Your task to perform on an android device: change notifications settings Image 0: 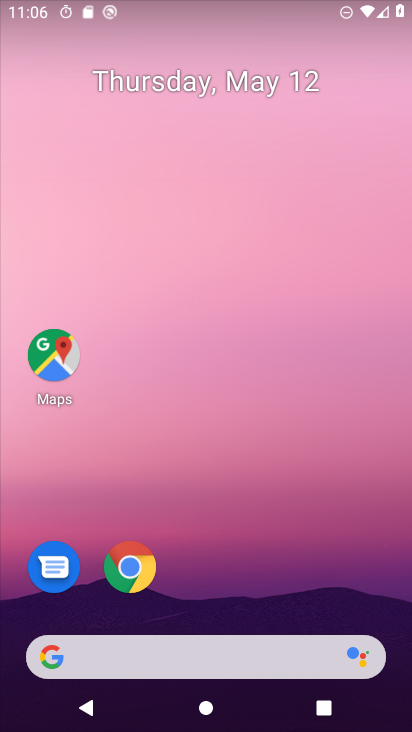
Step 0: drag from (259, 662) to (294, 185)
Your task to perform on an android device: change notifications settings Image 1: 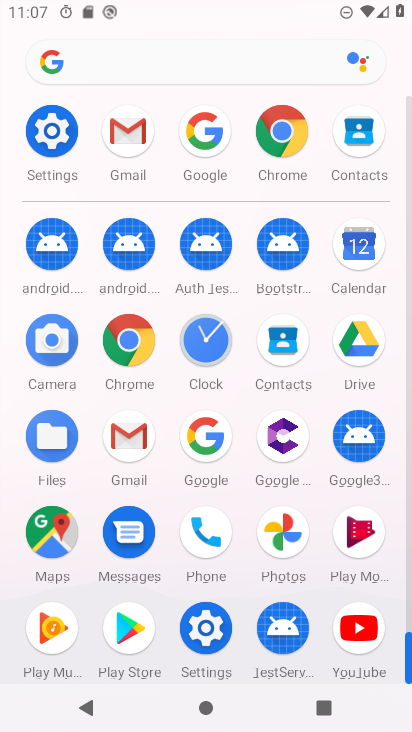
Step 1: click (51, 132)
Your task to perform on an android device: change notifications settings Image 2: 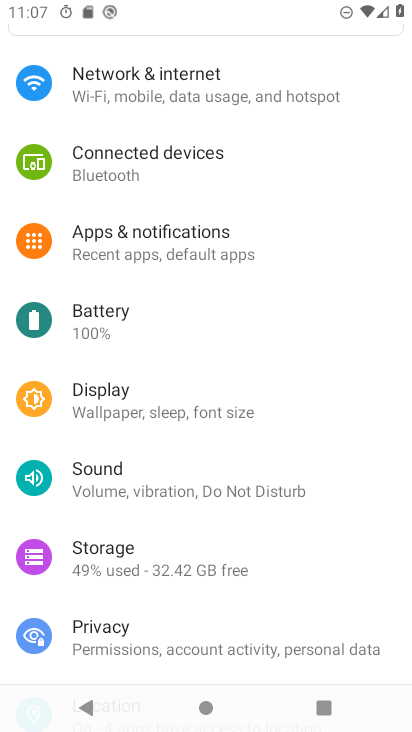
Step 2: click (195, 254)
Your task to perform on an android device: change notifications settings Image 3: 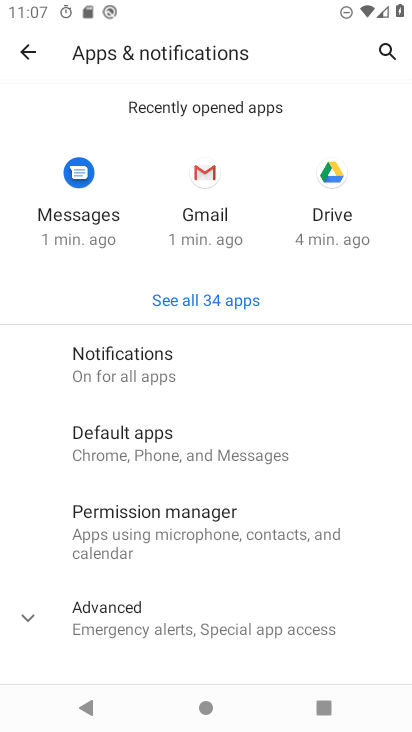
Step 3: drag from (214, 559) to (303, 195)
Your task to perform on an android device: change notifications settings Image 4: 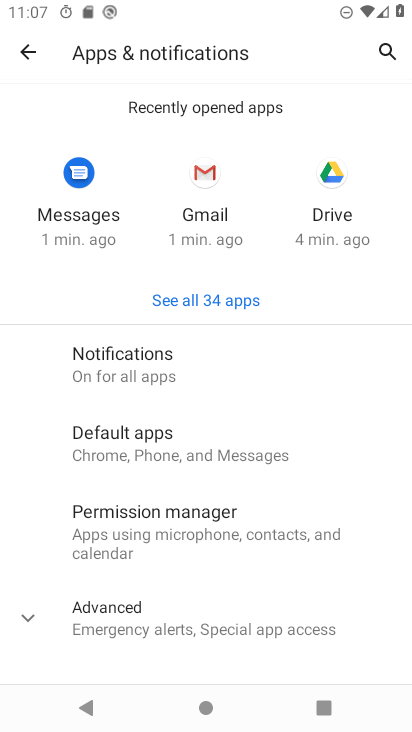
Step 4: click (196, 373)
Your task to perform on an android device: change notifications settings Image 5: 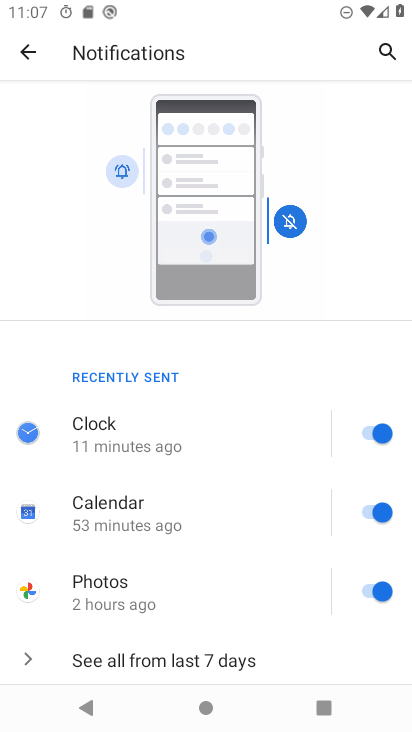
Step 5: click (377, 435)
Your task to perform on an android device: change notifications settings Image 6: 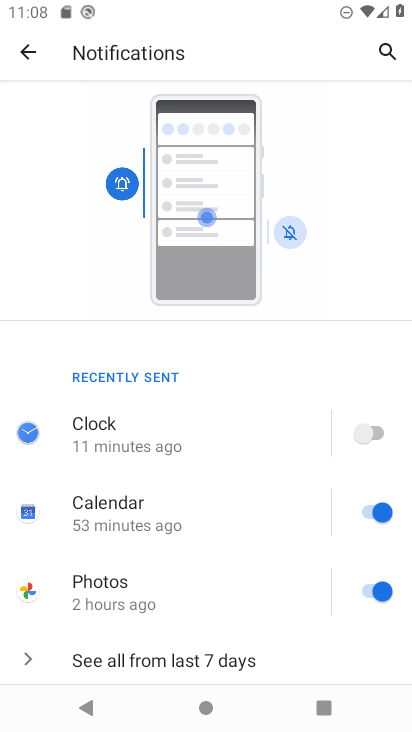
Step 6: task complete